Your task to perform on an android device: Do I have any events this weekend? Image 0: 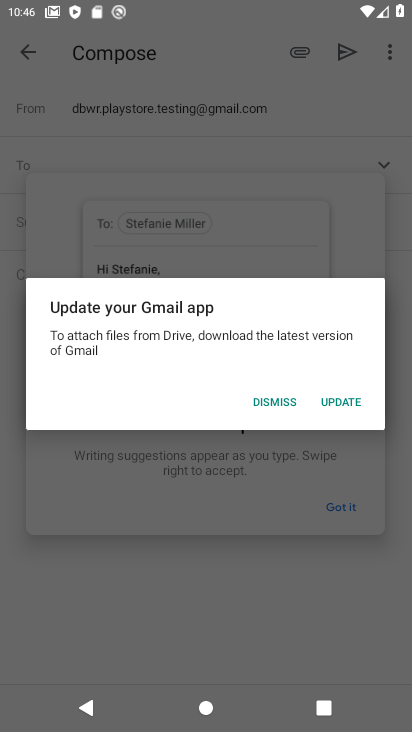
Step 0: press home button
Your task to perform on an android device: Do I have any events this weekend? Image 1: 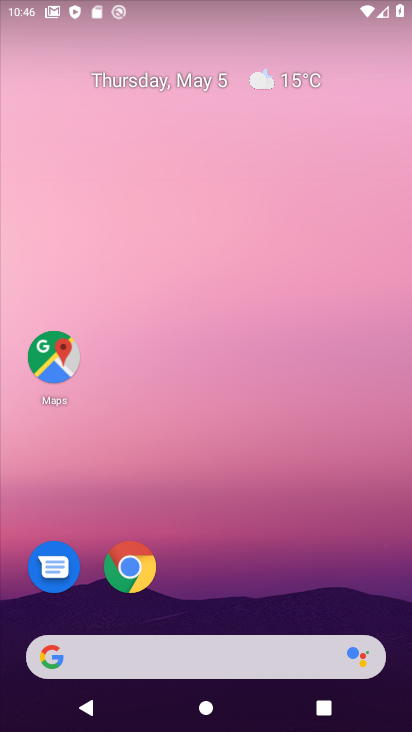
Step 1: drag from (130, 388) to (64, 35)
Your task to perform on an android device: Do I have any events this weekend? Image 2: 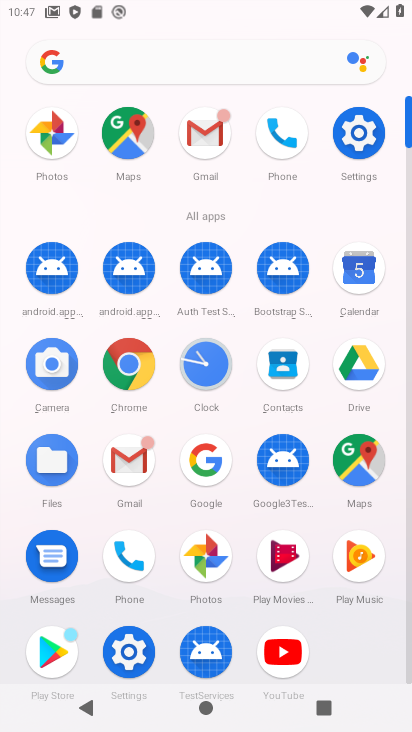
Step 2: click (363, 268)
Your task to perform on an android device: Do I have any events this weekend? Image 3: 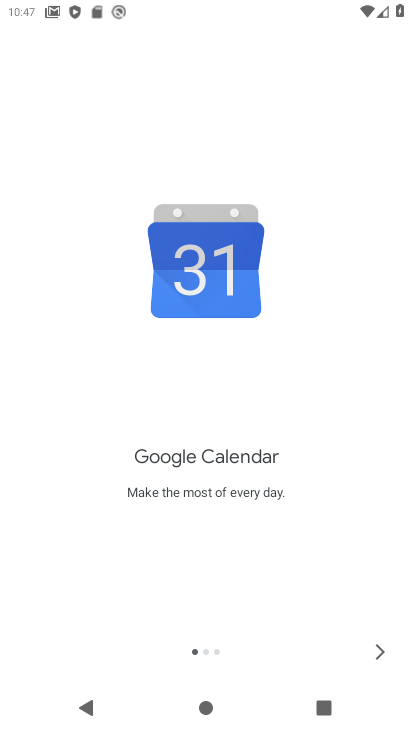
Step 3: click (375, 654)
Your task to perform on an android device: Do I have any events this weekend? Image 4: 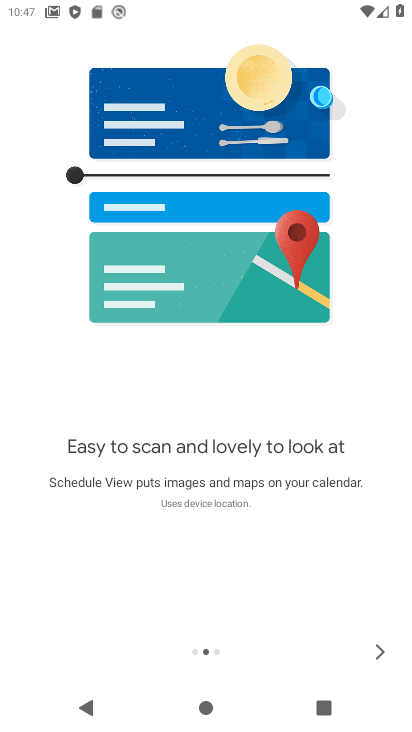
Step 4: click (375, 654)
Your task to perform on an android device: Do I have any events this weekend? Image 5: 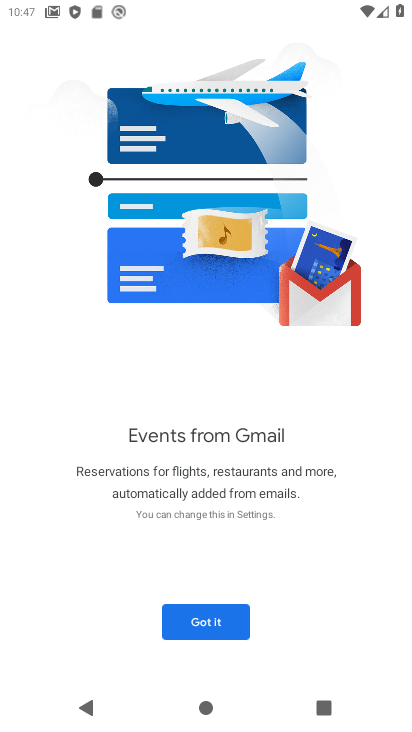
Step 5: click (206, 621)
Your task to perform on an android device: Do I have any events this weekend? Image 6: 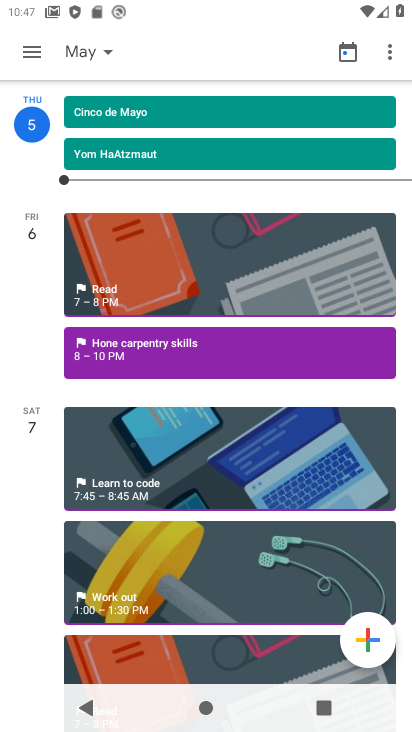
Step 6: click (91, 49)
Your task to perform on an android device: Do I have any events this weekend? Image 7: 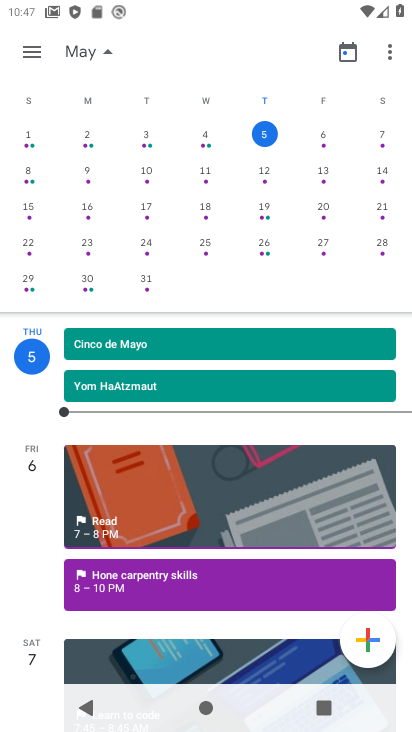
Step 7: click (377, 132)
Your task to perform on an android device: Do I have any events this weekend? Image 8: 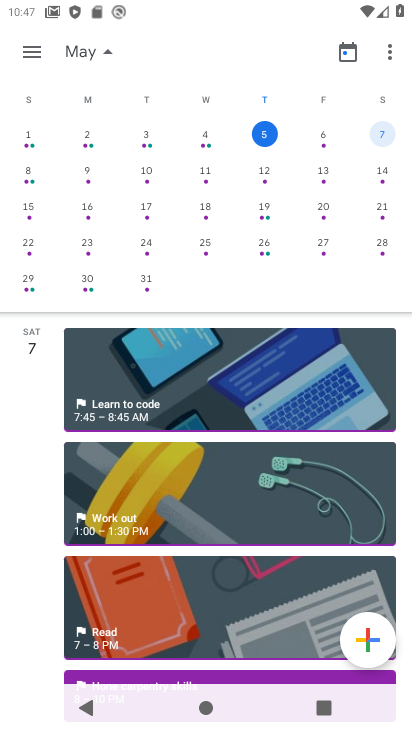
Step 8: task complete